Your task to perform on an android device: Show me recent news Image 0: 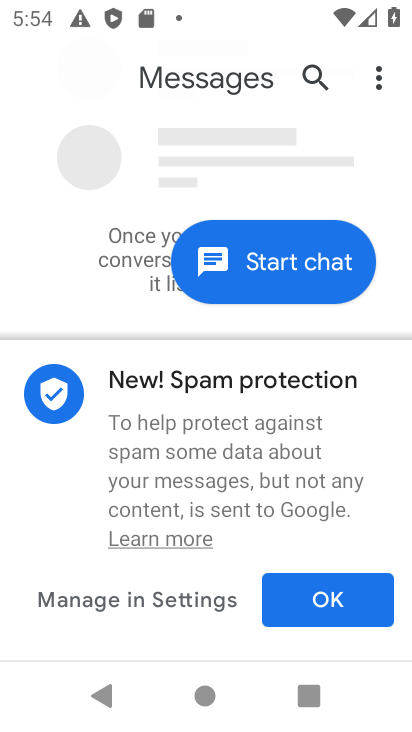
Step 0: click (204, 694)
Your task to perform on an android device: Show me recent news Image 1: 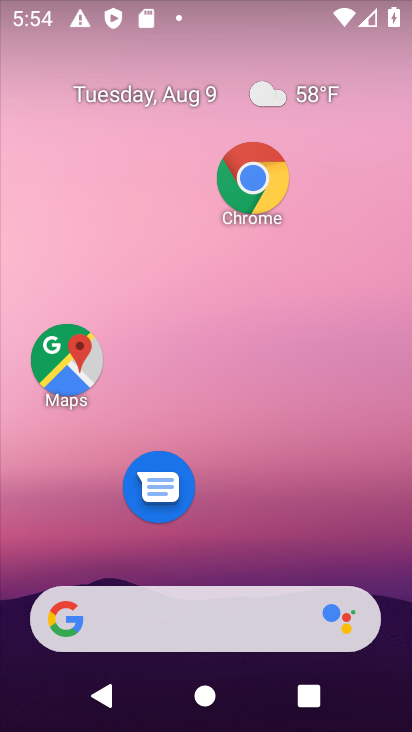
Step 1: click (169, 605)
Your task to perform on an android device: Show me recent news Image 2: 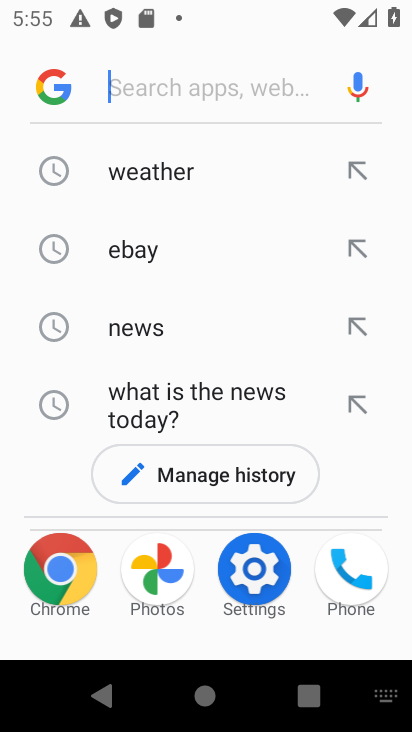
Step 2: type "recent news"
Your task to perform on an android device: Show me recent news Image 3: 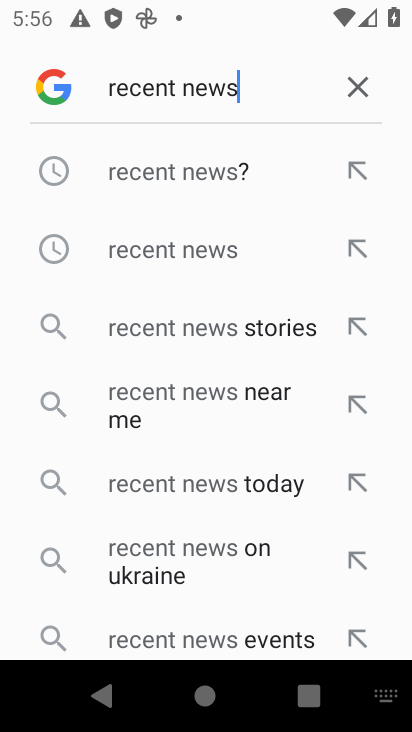
Step 3: click (160, 176)
Your task to perform on an android device: Show me recent news Image 4: 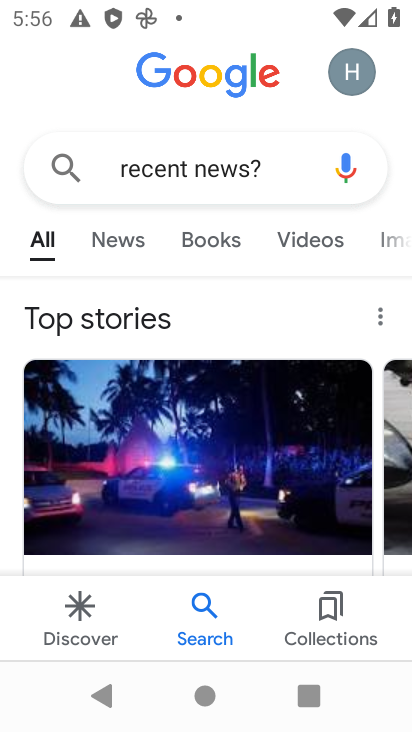
Step 4: task complete